Your task to perform on an android device: Open settings Image 0: 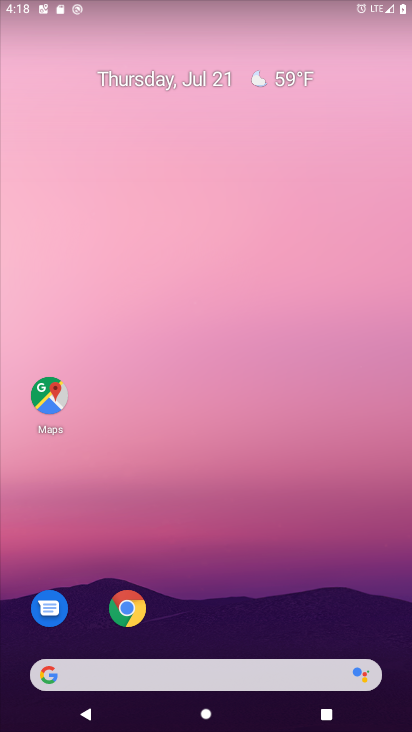
Step 0: drag from (326, 669) to (351, 6)
Your task to perform on an android device: Open settings Image 1: 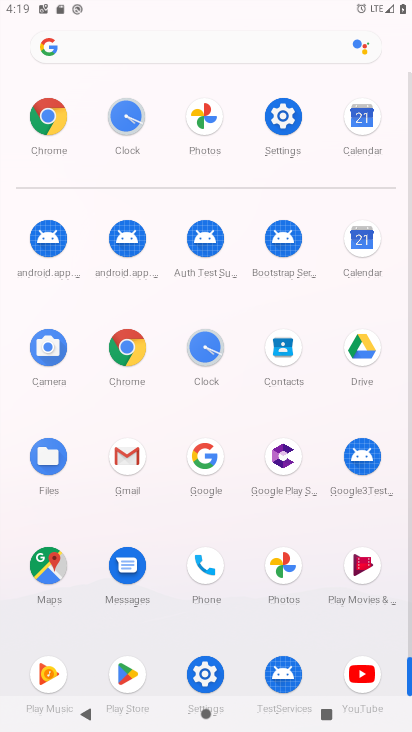
Step 1: click (290, 122)
Your task to perform on an android device: Open settings Image 2: 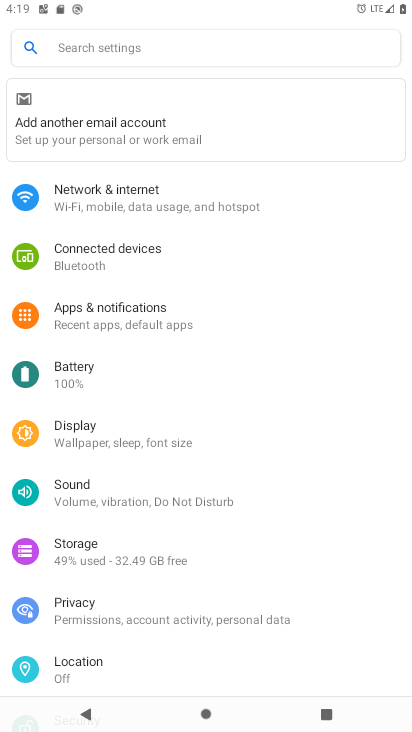
Step 2: task complete